Your task to perform on an android device: open a bookmark in the chrome app Image 0: 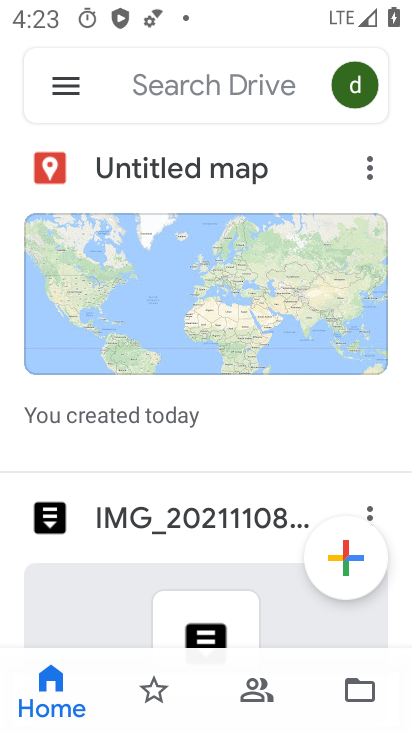
Step 0: press home button
Your task to perform on an android device: open a bookmark in the chrome app Image 1: 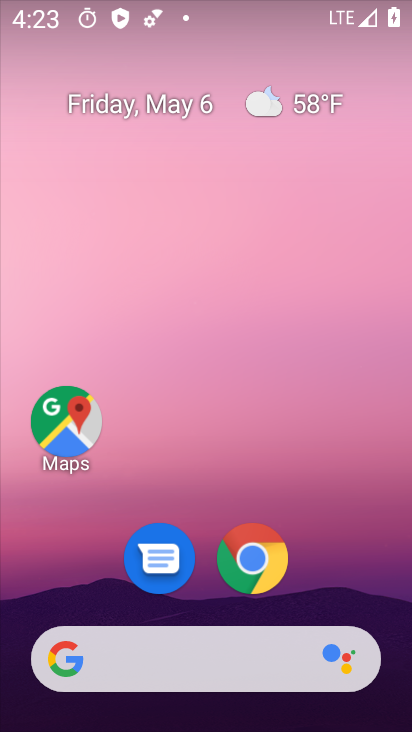
Step 1: drag from (343, 607) to (353, 12)
Your task to perform on an android device: open a bookmark in the chrome app Image 2: 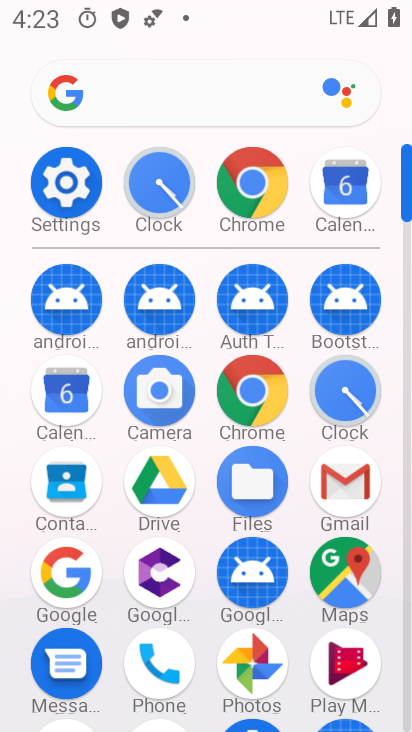
Step 2: click (268, 411)
Your task to perform on an android device: open a bookmark in the chrome app Image 3: 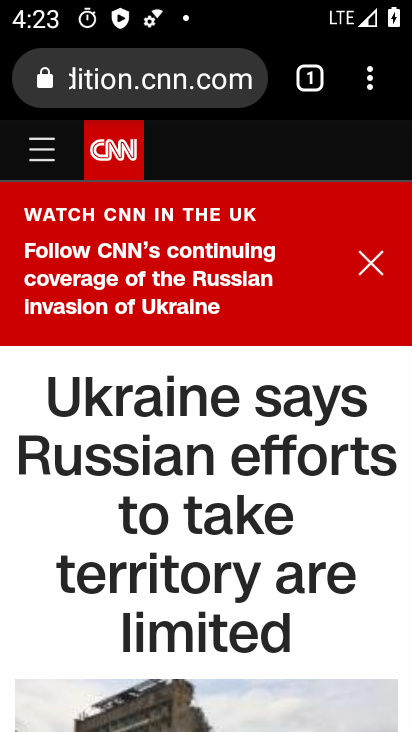
Step 3: task complete